Your task to perform on an android device: create a new album in the google photos Image 0: 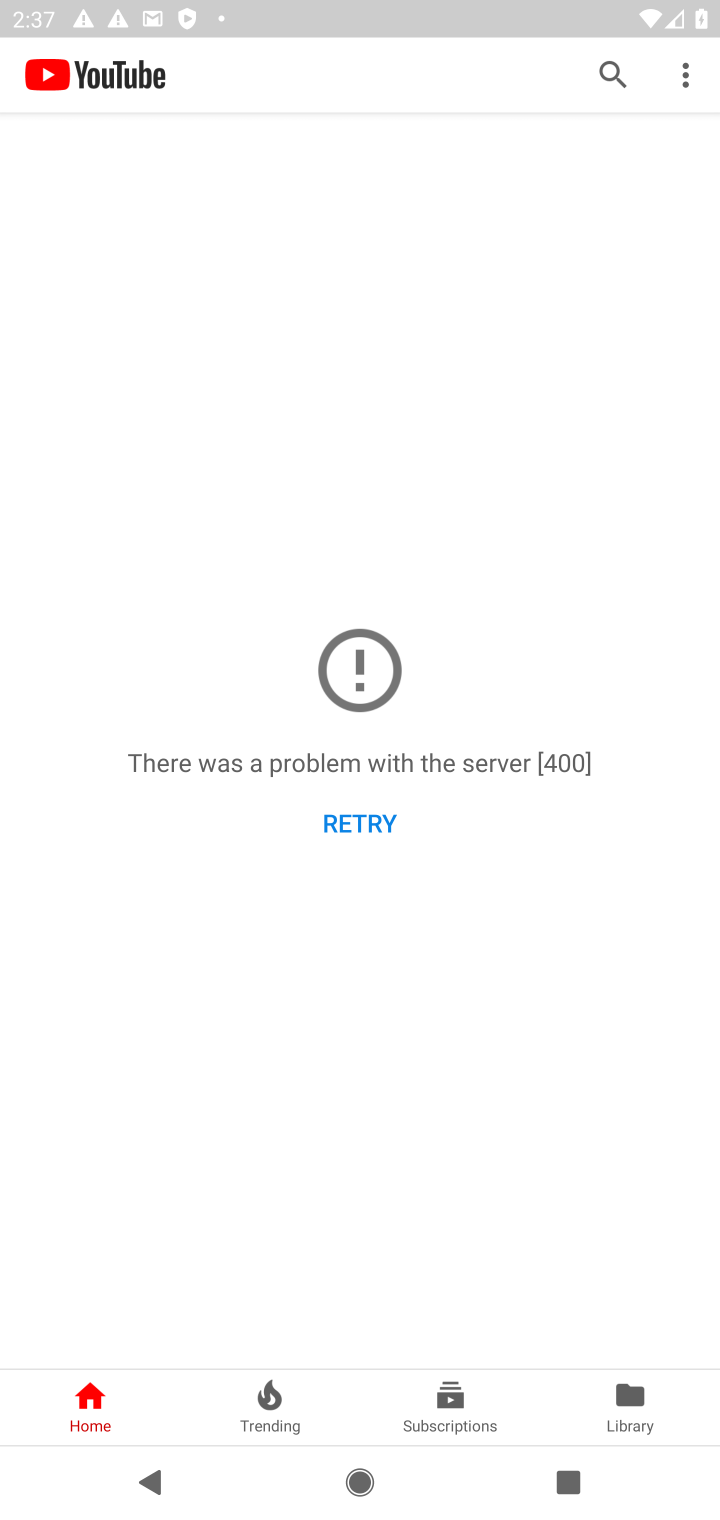
Step 0: press home button
Your task to perform on an android device: create a new album in the google photos Image 1: 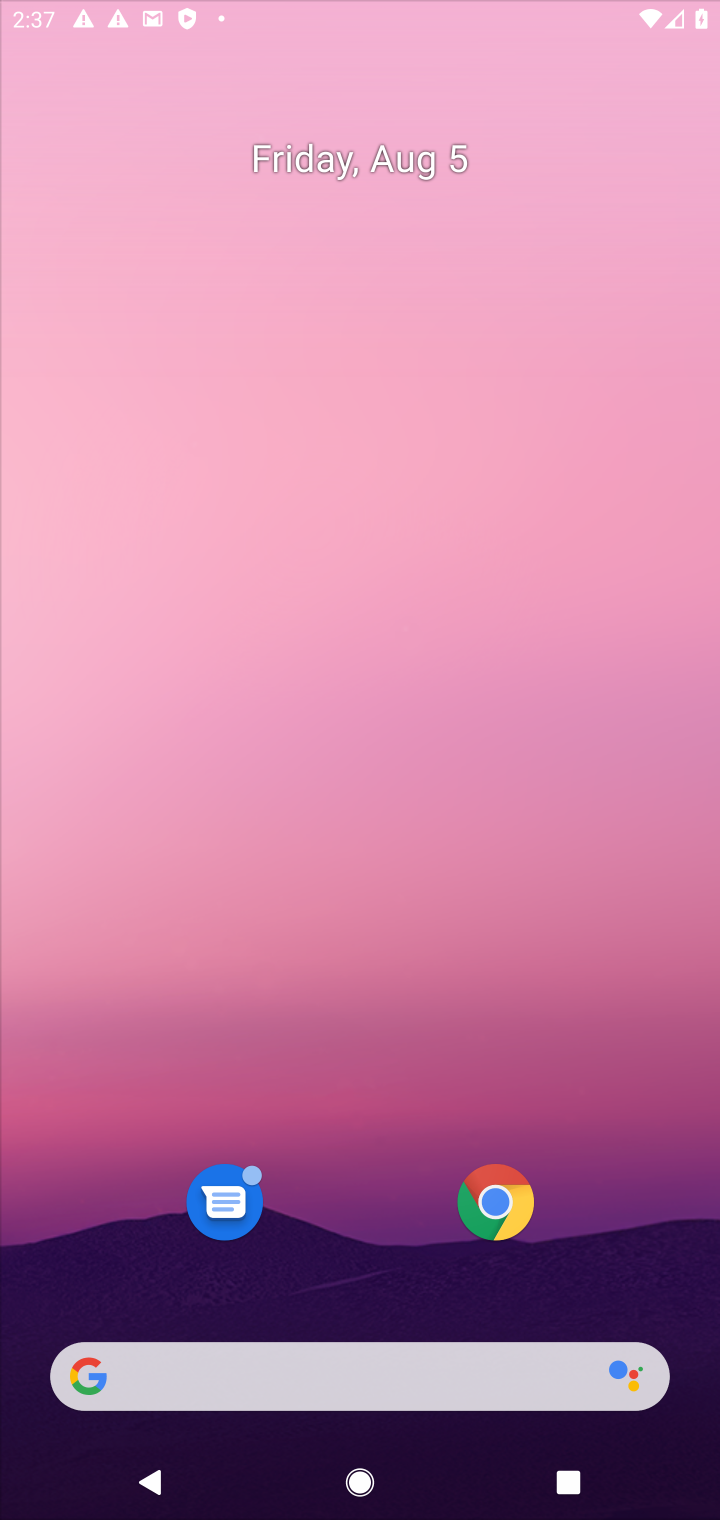
Step 1: drag from (364, 1047) to (361, 194)
Your task to perform on an android device: create a new album in the google photos Image 2: 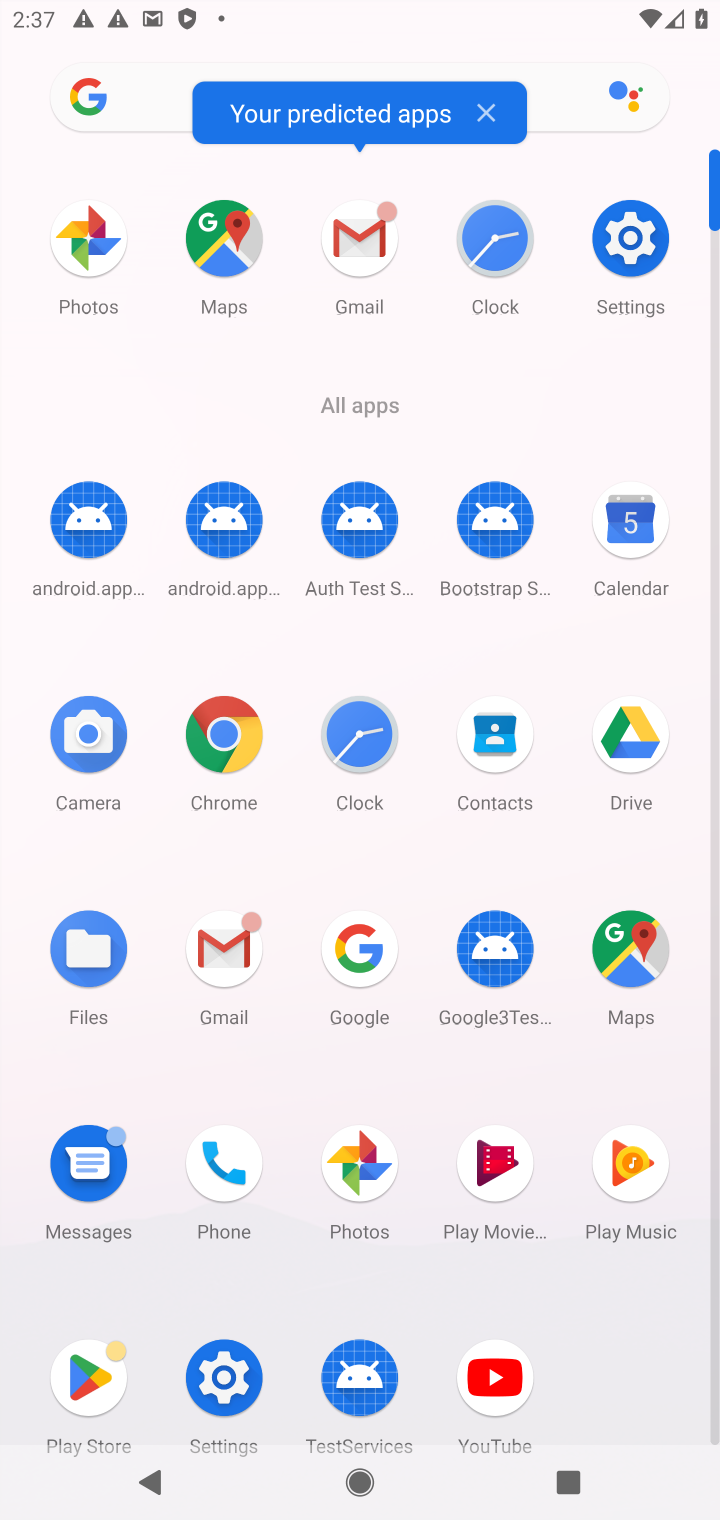
Step 2: click (368, 1175)
Your task to perform on an android device: create a new album in the google photos Image 3: 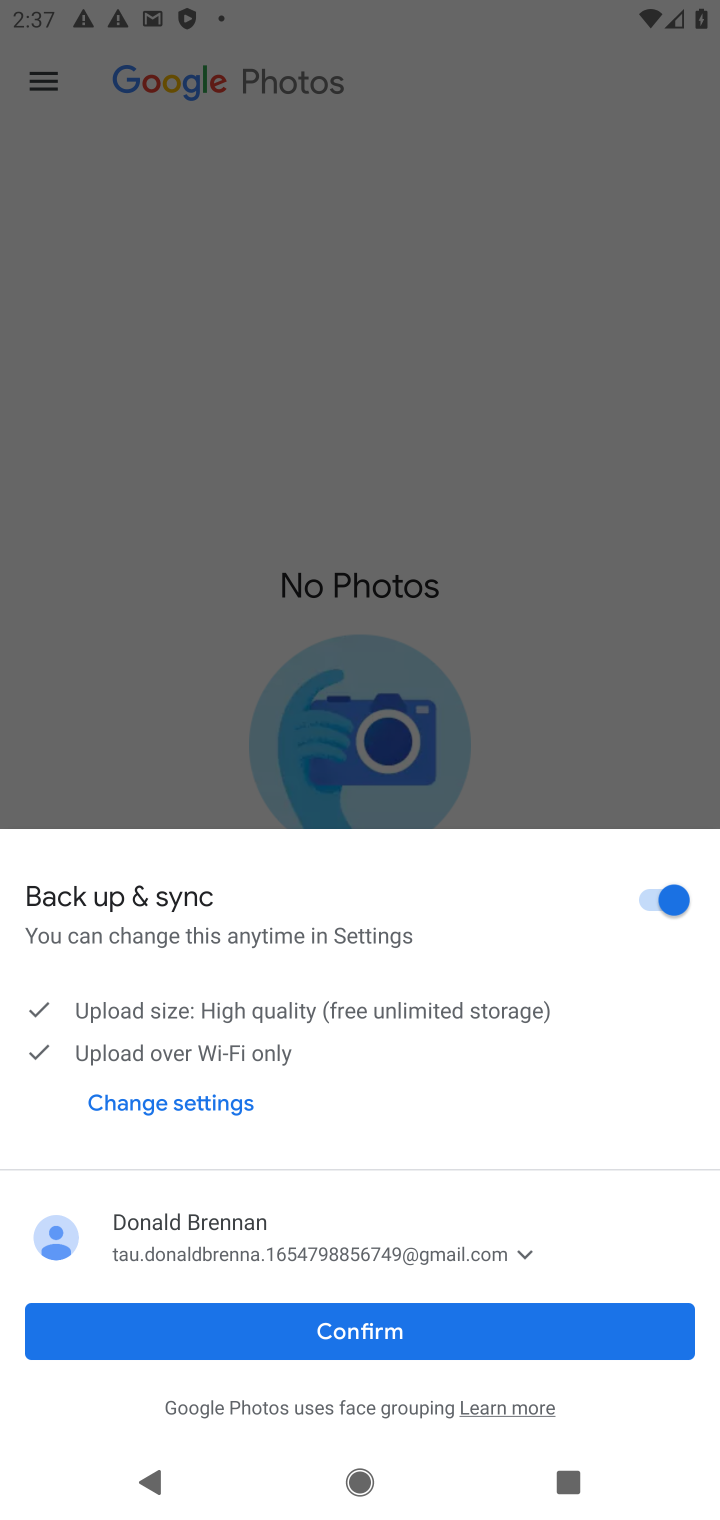
Step 3: click (382, 1345)
Your task to perform on an android device: create a new album in the google photos Image 4: 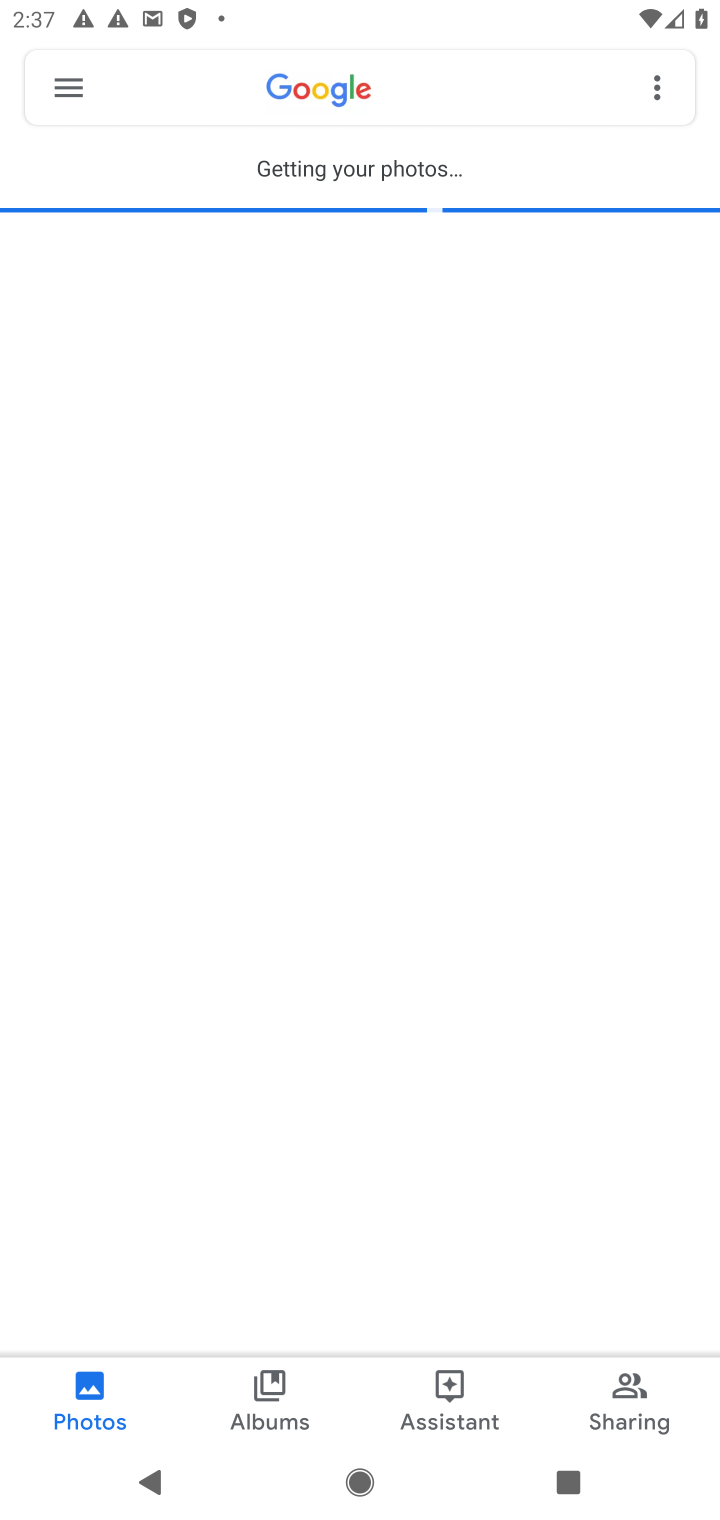
Step 4: click (266, 1414)
Your task to perform on an android device: create a new album in the google photos Image 5: 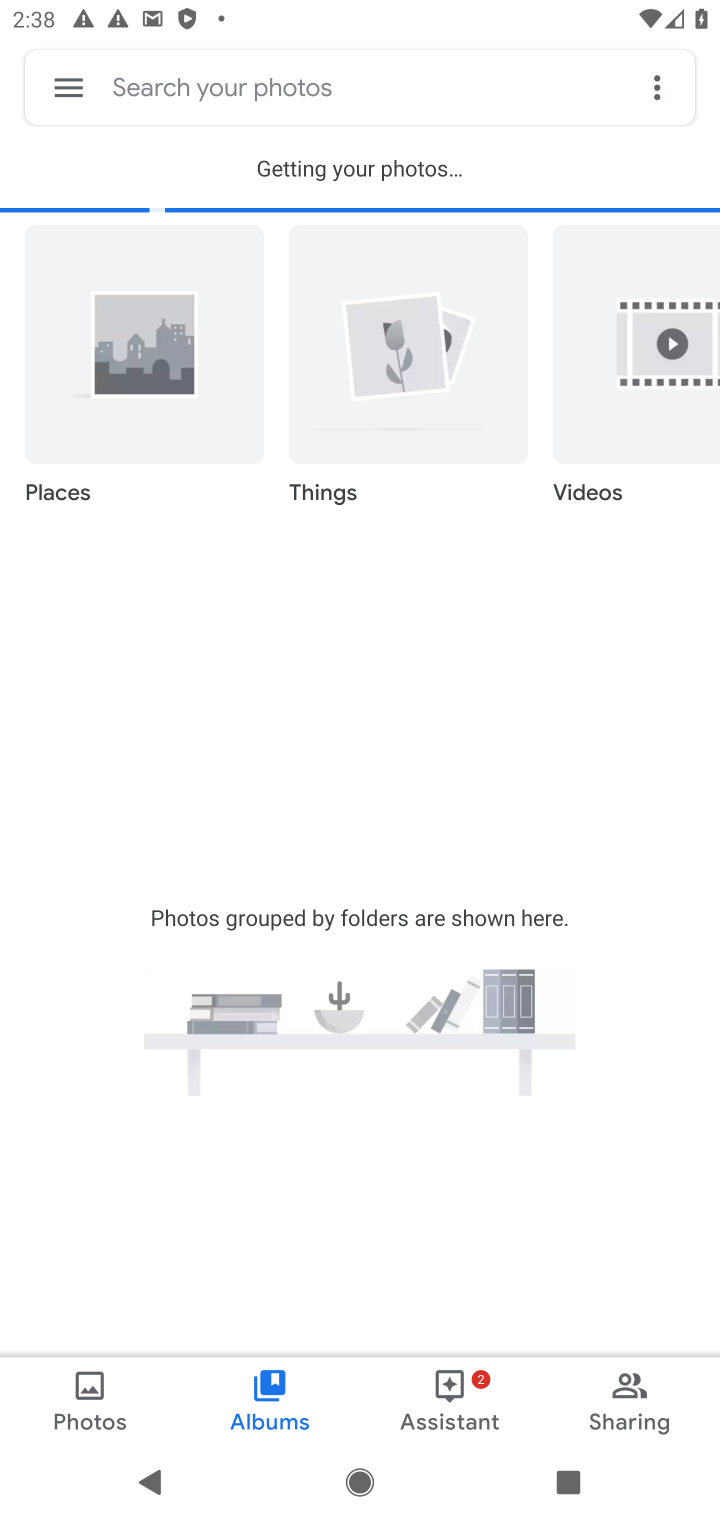
Step 5: task complete